Your task to perform on an android device: find snoozed emails in the gmail app Image 0: 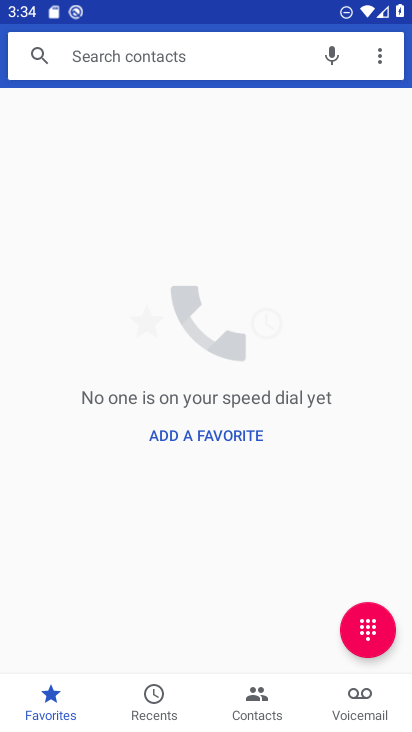
Step 0: press home button
Your task to perform on an android device: find snoozed emails in the gmail app Image 1: 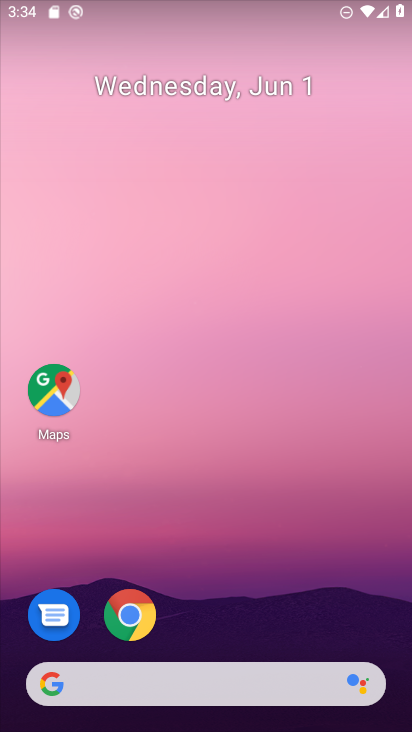
Step 1: drag from (237, 630) to (245, 94)
Your task to perform on an android device: find snoozed emails in the gmail app Image 2: 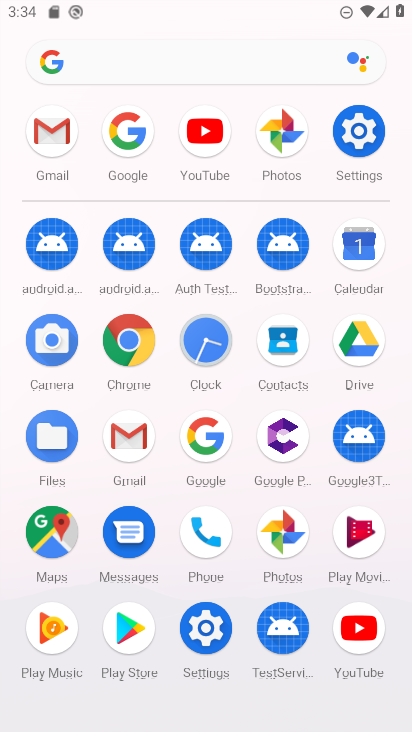
Step 2: click (130, 432)
Your task to perform on an android device: find snoozed emails in the gmail app Image 3: 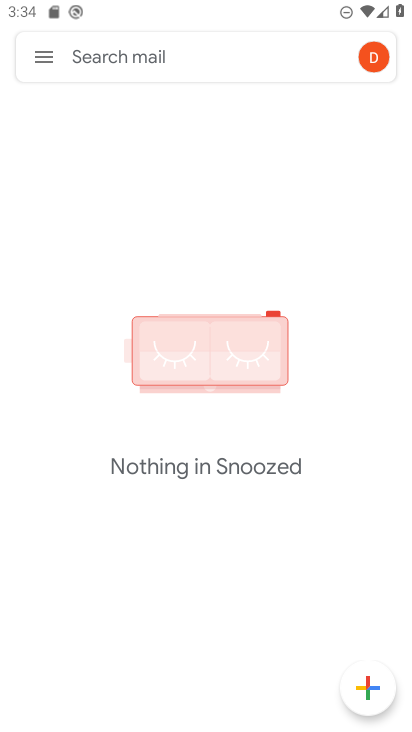
Step 3: click (35, 54)
Your task to perform on an android device: find snoozed emails in the gmail app Image 4: 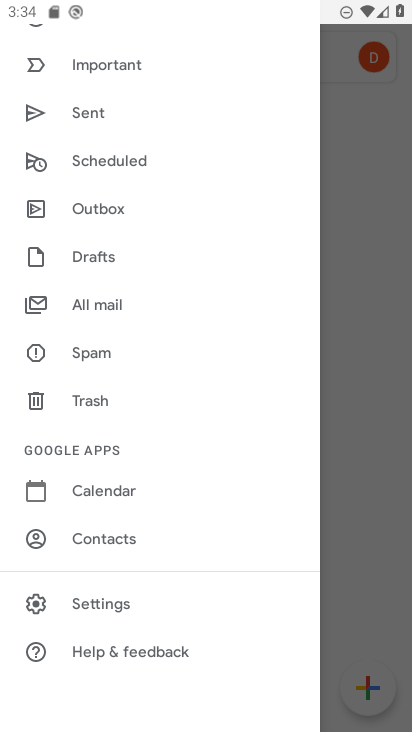
Step 4: drag from (141, 185) to (181, 559)
Your task to perform on an android device: find snoozed emails in the gmail app Image 5: 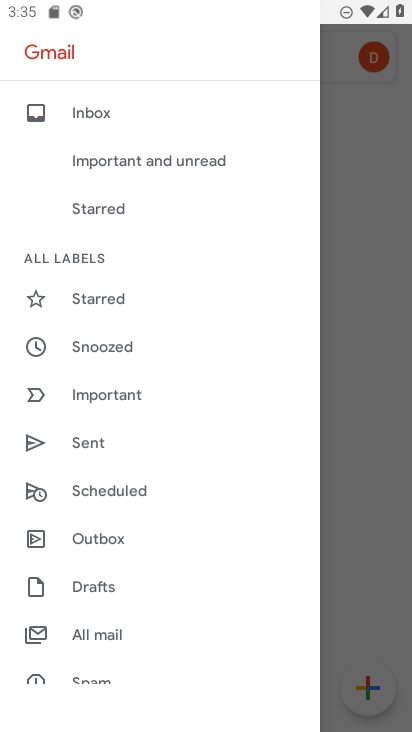
Step 5: click (141, 296)
Your task to perform on an android device: find snoozed emails in the gmail app Image 6: 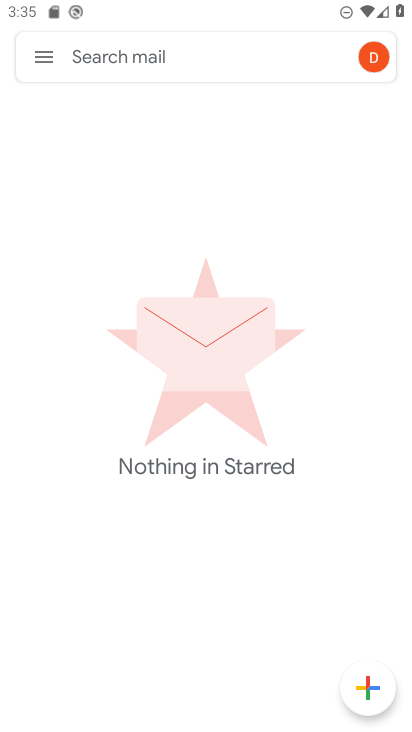
Step 6: task complete